Your task to perform on an android device: Is it going to rain today? Image 0: 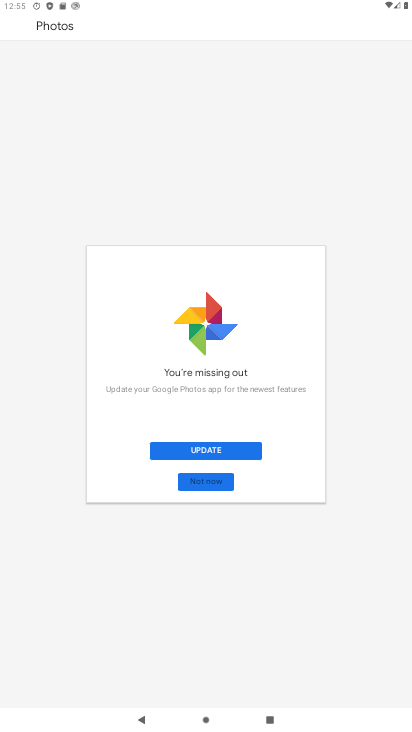
Step 0: press home button
Your task to perform on an android device: Is it going to rain today? Image 1: 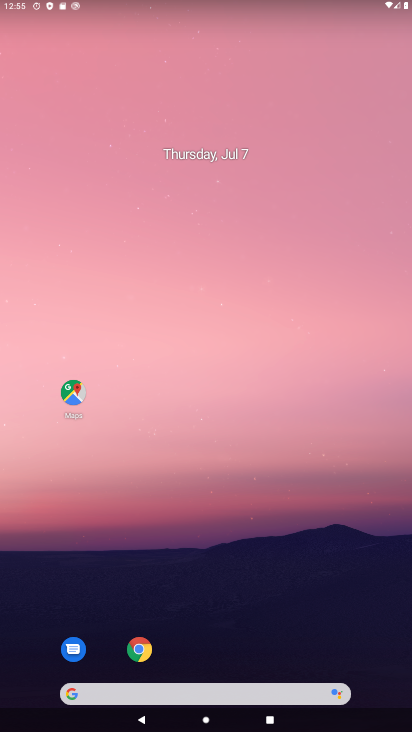
Step 1: click (187, 691)
Your task to perform on an android device: Is it going to rain today? Image 2: 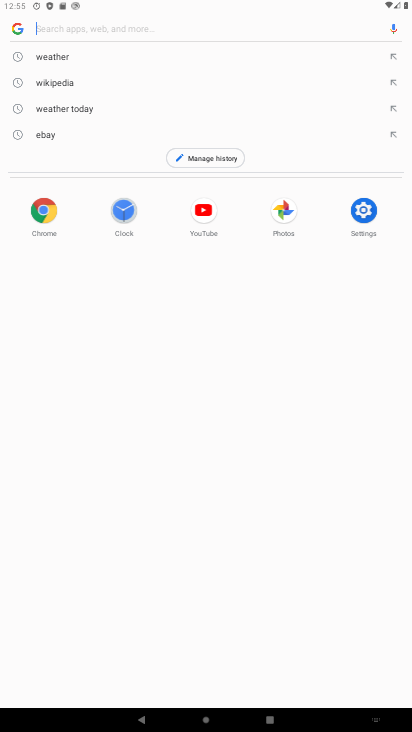
Step 2: click (51, 55)
Your task to perform on an android device: Is it going to rain today? Image 3: 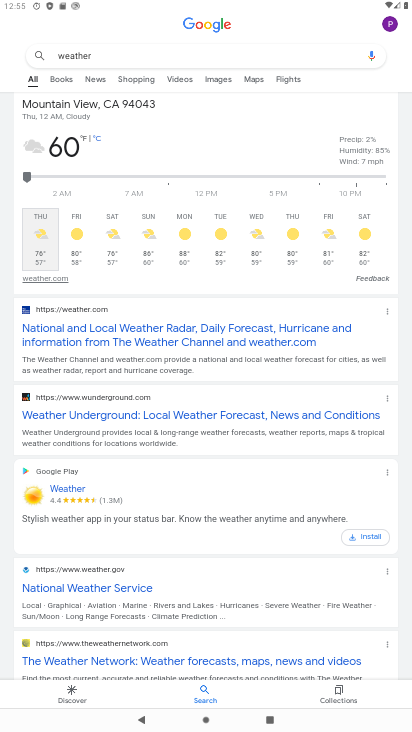
Step 3: click (37, 210)
Your task to perform on an android device: Is it going to rain today? Image 4: 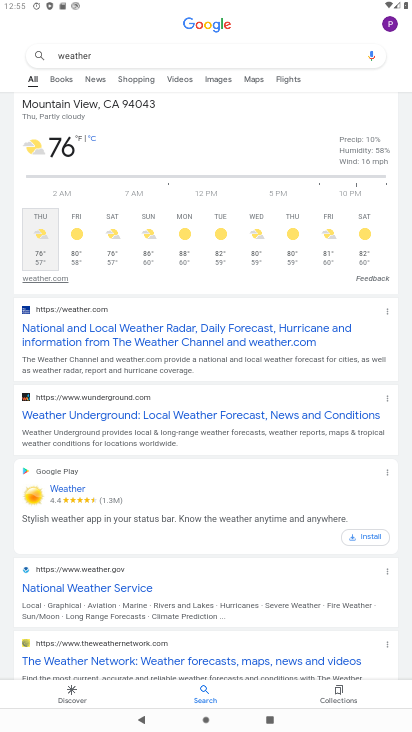
Step 4: task complete